Your task to perform on an android device: Open notification settings Image 0: 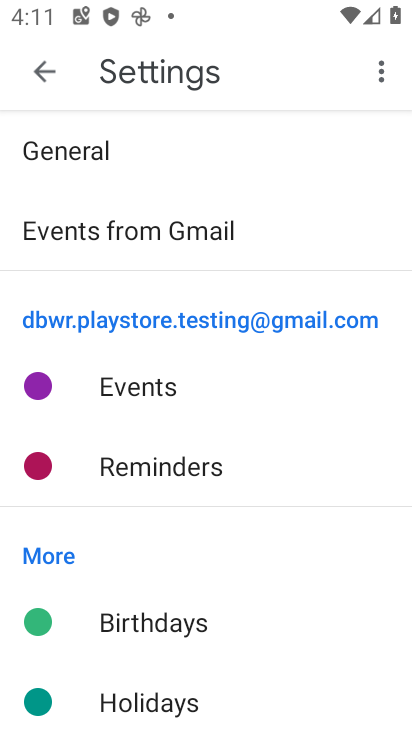
Step 0: press home button
Your task to perform on an android device: Open notification settings Image 1: 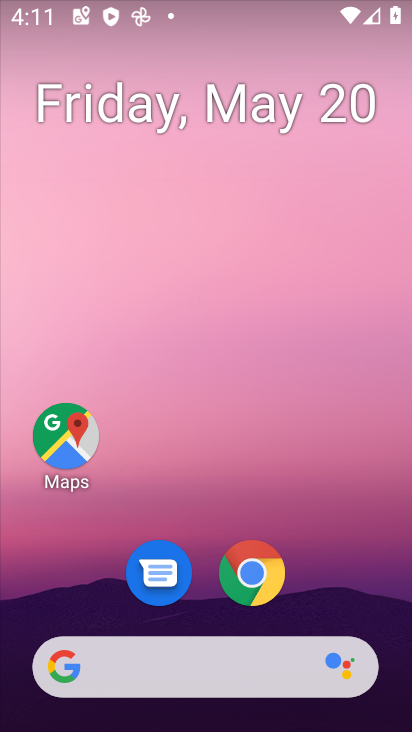
Step 1: drag from (396, 612) to (320, 146)
Your task to perform on an android device: Open notification settings Image 2: 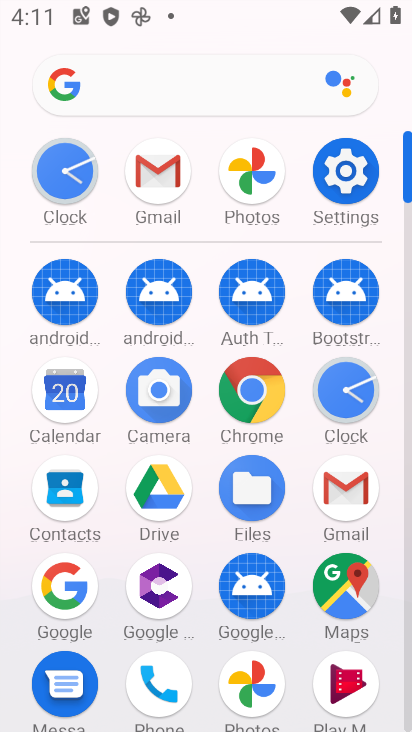
Step 2: click (406, 704)
Your task to perform on an android device: Open notification settings Image 3: 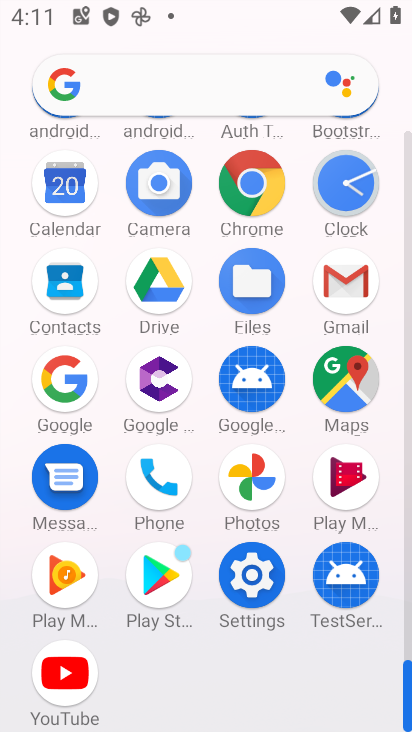
Step 3: click (252, 572)
Your task to perform on an android device: Open notification settings Image 4: 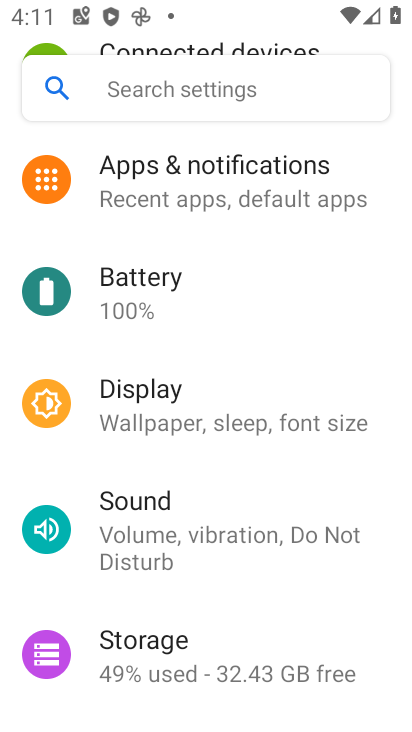
Step 4: click (176, 178)
Your task to perform on an android device: Open notification settings Image 5: 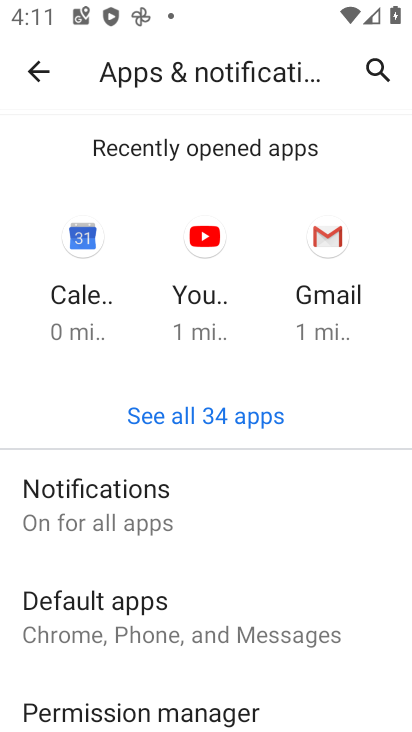
Step 5: drag from (293, 601) to (302, 259)
Your task to perform on an android device: Open notification settings Image 6: 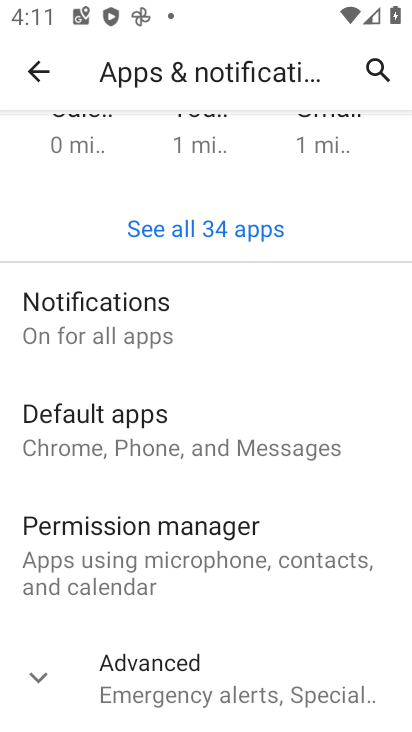
Step 6: click (87, 305)
Your task to perform on an android device: Open notification settings Image 7: 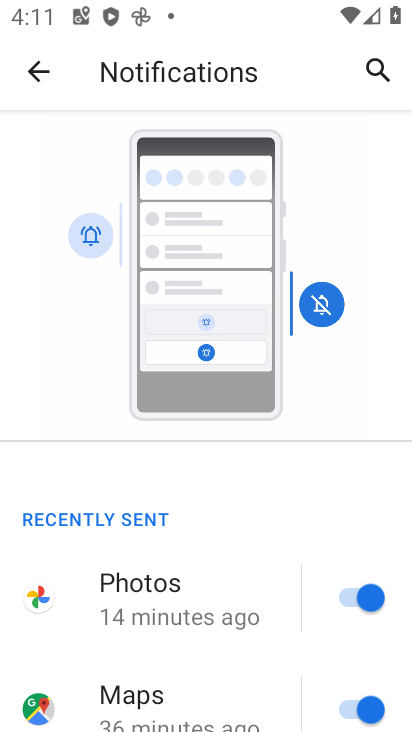
Step 7: drag from (301, 683) to (252, 227)
Your task to perform on an android device: Open notification settings Image 8: 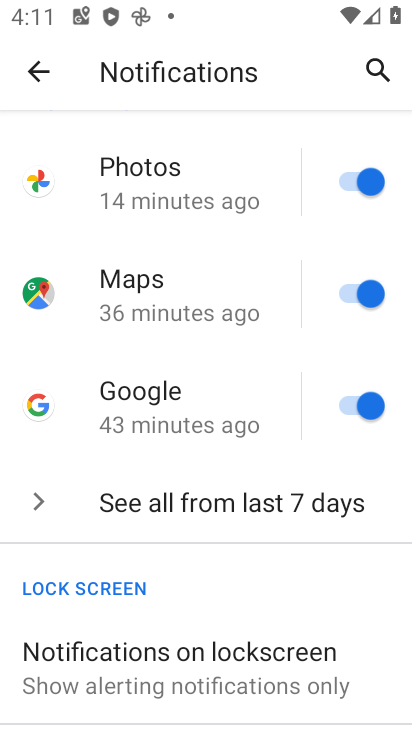
Step 8: drag from (322, 664) to (292, 224)
Your task to perform on an android device: Open notification settings Image 9: 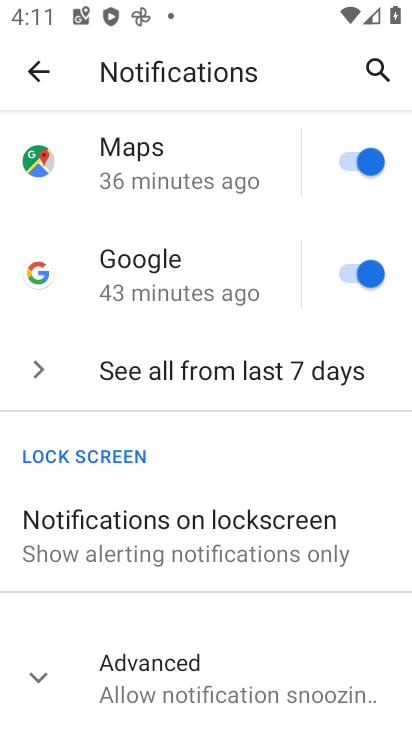
Step 9: click (32, 679)
Your task to perform on an android device: Open notification settings Image 10: 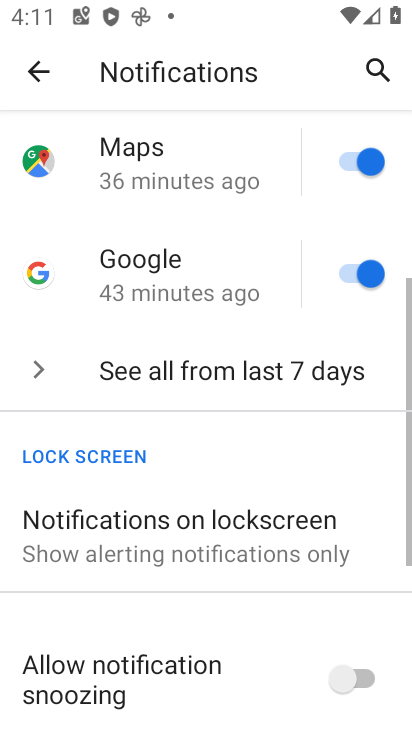
Step 10: drag from (317, 670) to (270, 150)
Your task to perform on an android device: Open notification settings Image 11: 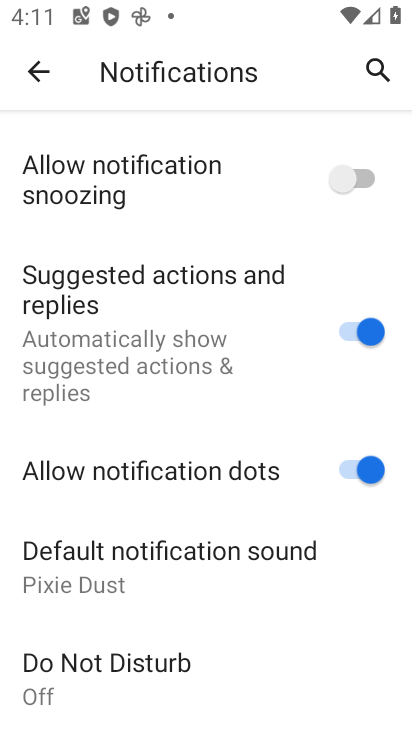
Step 11: click (363, 175)
Your task to perform on an android device: Open notification settings Image 12: 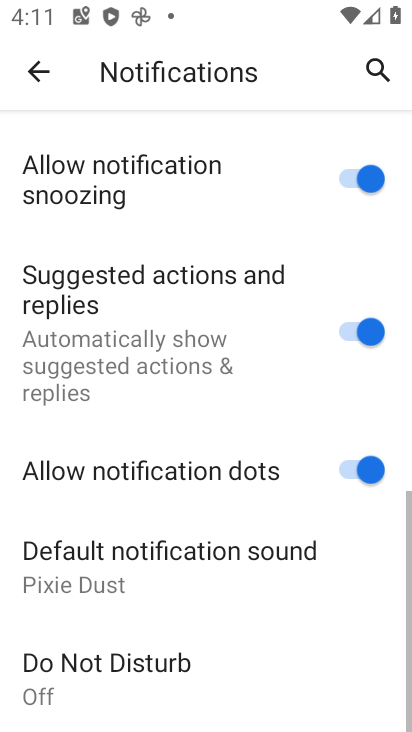
Step 12: click (347, 471)
Your task to perform on an android device: Open notification settings Image 13: 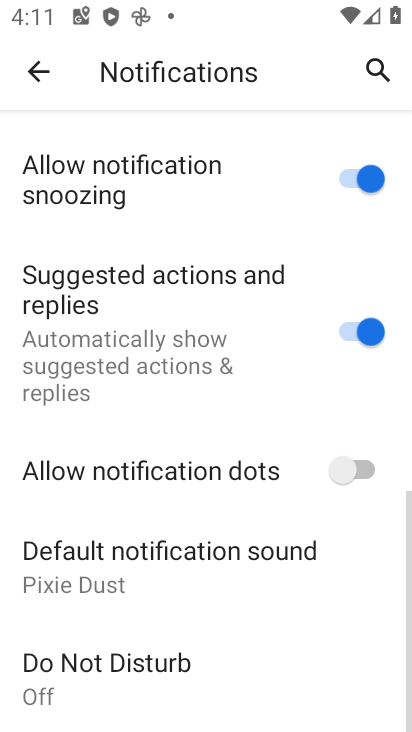
Step 13: task complete